Your task to perform on an android device: Open wifi settings Image 0: 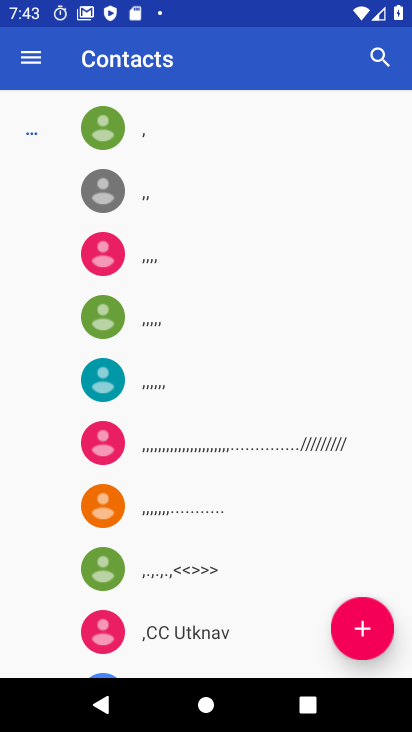
Step 0: press home button
Your task to perform on an android device: Open wifi settings Image 1: 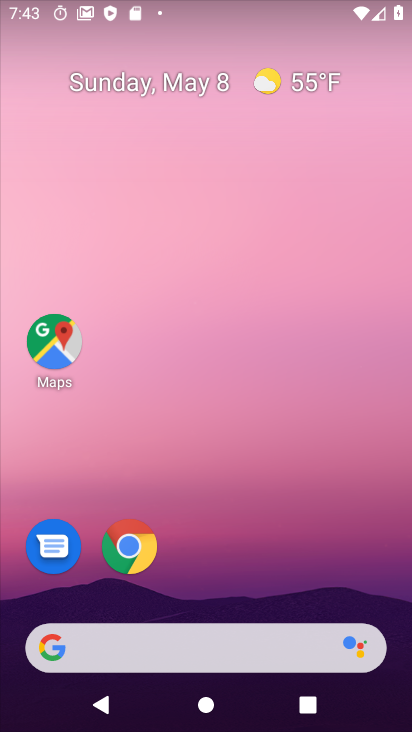
Step 1: drag from (265, 500) to (282, 0)
Your task to perform on an android device: Open wifi settings Image 2: 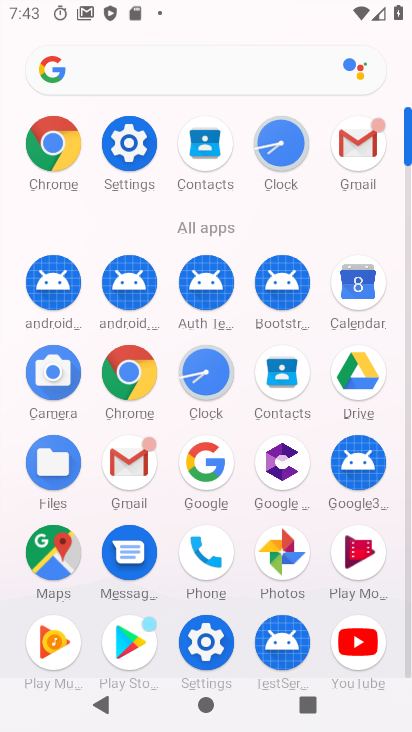
Step 2: click (135, 142)
Your task to perform on an android device: Open wifi settings Image 3: 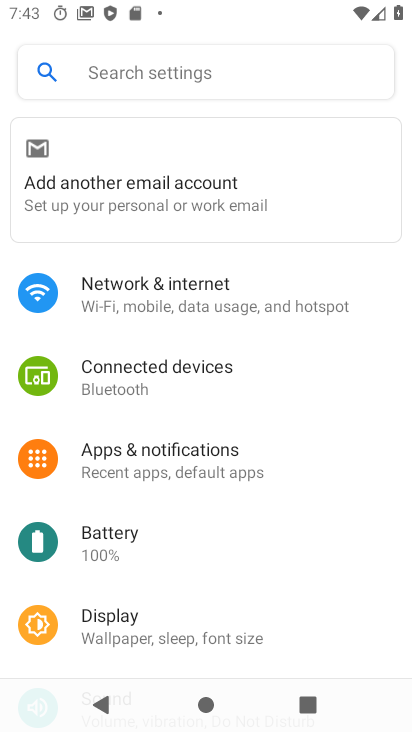
Step 3: click (135, 141)
Your task to perform on an android device: Open wifi settings Image 4: 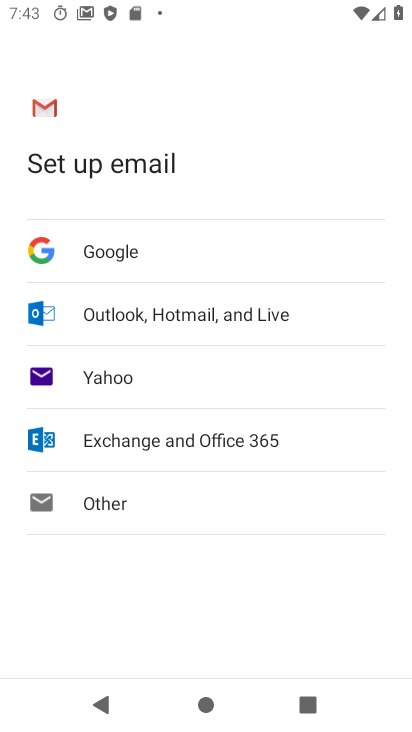
Step 4: click (107, 707)
Your task to perform on an android device: Open wifi settings Image 5: 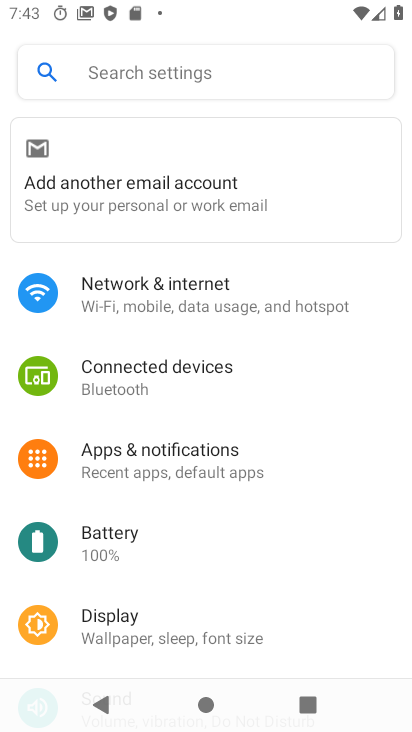
Step 5: click (239, 292)
Your task to perform on an android device: Open wifi settings Image 6: 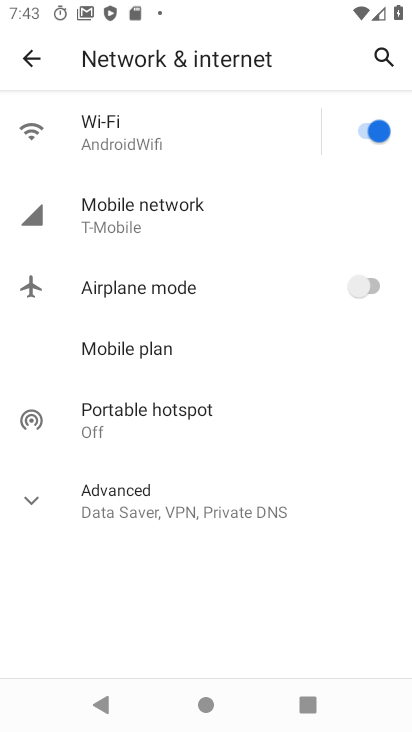
Step 6: click (211, 137)
Your task to perform on an android device: Open wifi settings Image 7: 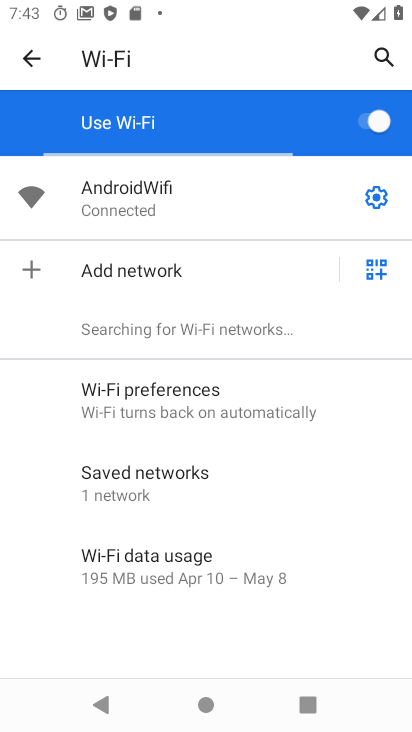
Step 7: task complete